Your task to perform on an android device: turn off wifi Image 0: 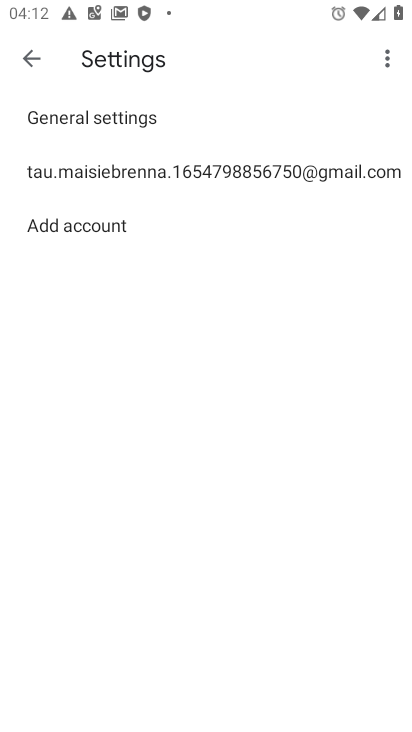
Step 0: press home button
Your task to perform on an android device: turn off wifi Image 1: 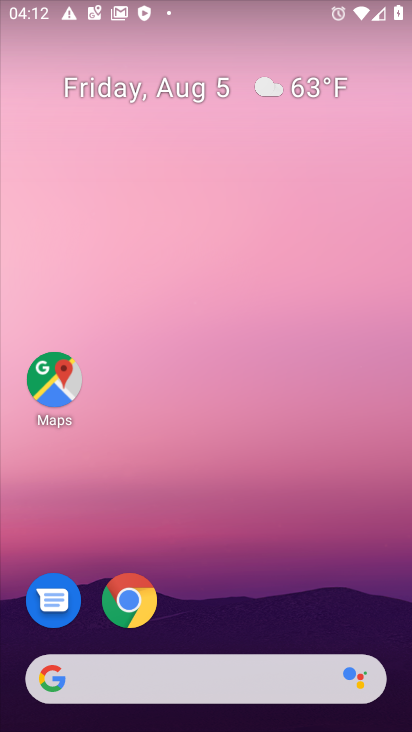
Step 1: drag from (207, 684) to (187, 22)
Your task to perform on an android device: turn off wifi Image 2: 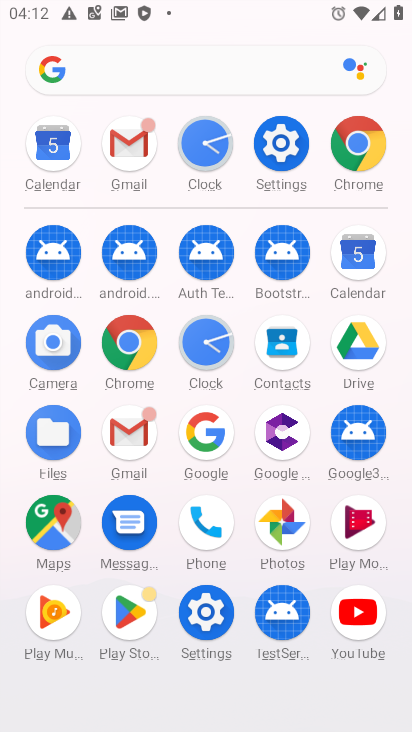
Step 2: click (281, 145)
Your task to perform on an android device: turn off wifi Image 3: 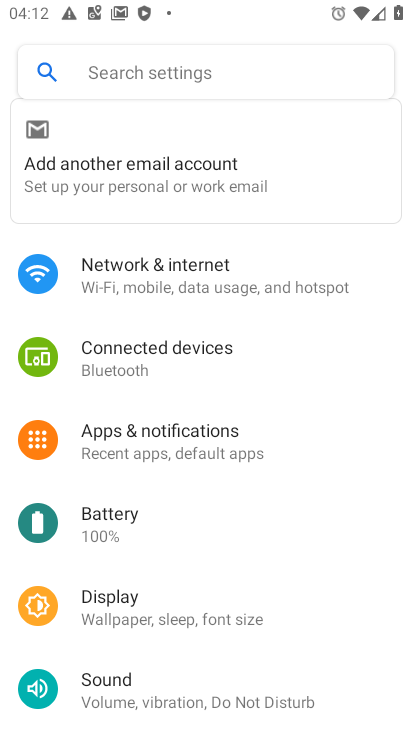
Step 3: click (190, 287)
Your task to perform on an android device: turn off wifi Image 4: 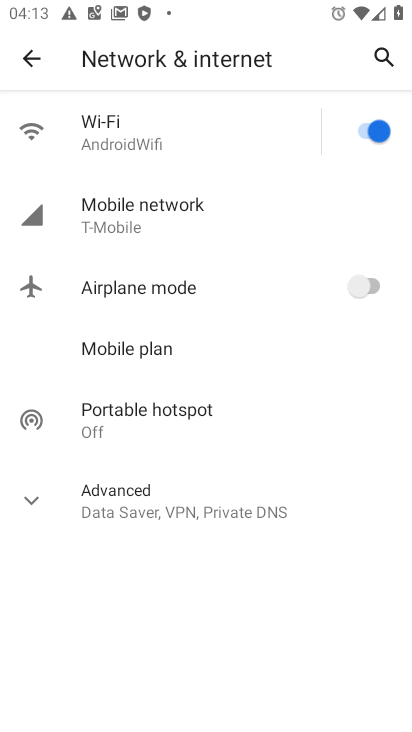
Step 4: click (366, 136)
Your task to perform on an android device: turn off wifi Image 5: 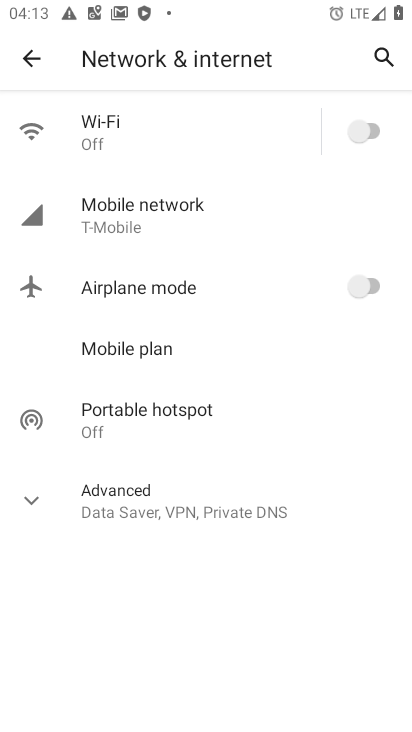
Step 5: task complete